Your task to perform on an android device: turn off smart reply in the gmail app Image 0: 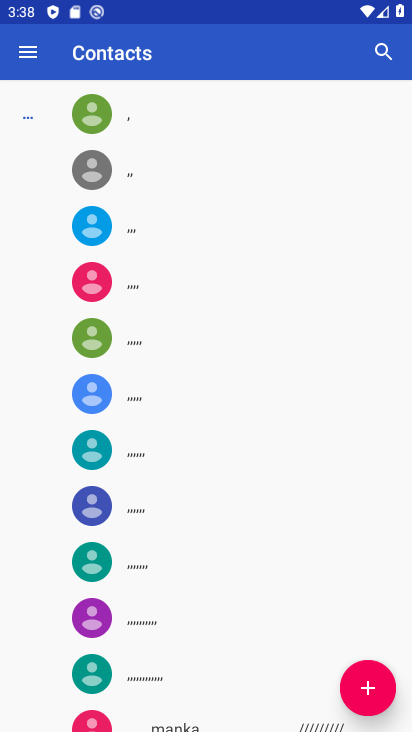
Step 0: press home button
Your task to perform on an android device: turn off smart reply in the gmail app Image 1: 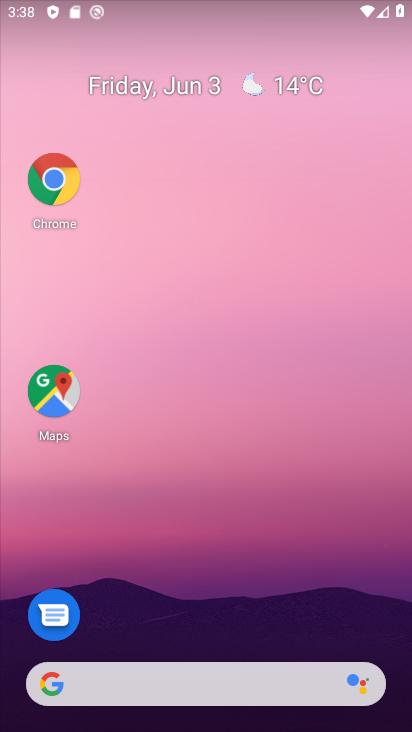
Step 1: drag from (109, 711) to (119, 3)
Your task to perform on an android device: turn off smart reply in the gmail app Image 2: 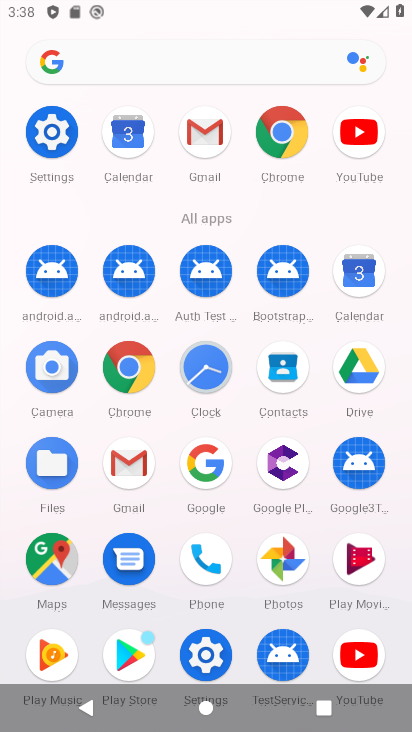
Step 2: click (132, 472)
Your task to perform on an android device: turn off smart reply in the gmail app Image 3: 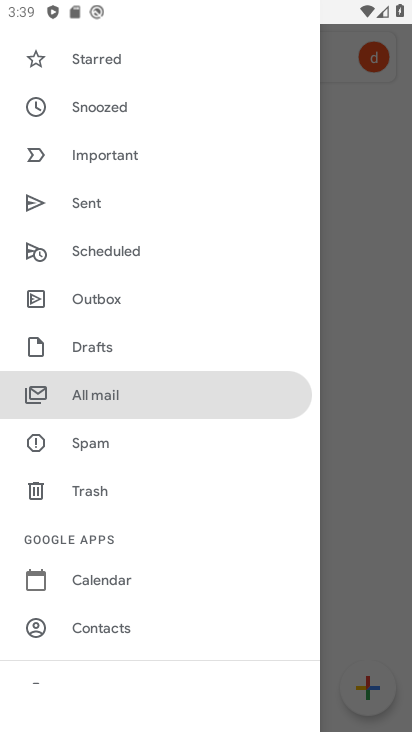
Step 3: drag from (161, 687) to (195, 220)
Your task to perform on an android device: turn off smart reply in the gmail app Image 4: 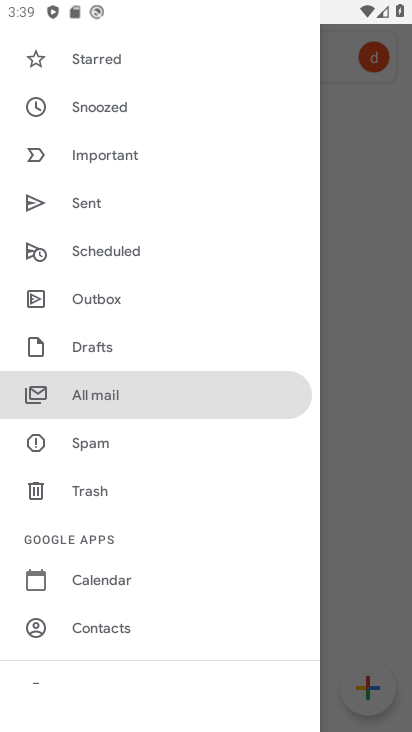
Step 4: drag from (157, 660) to (196, 184)
Your task to perform on an android device: turn off smart reply in the gmail app Image 5: 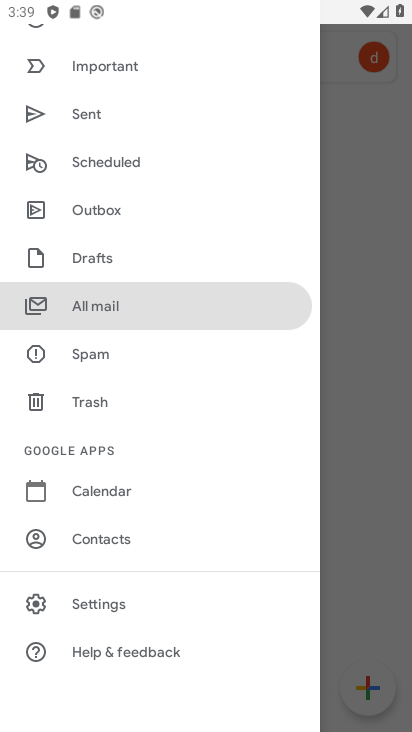
Step 5: click (109, 606)
Your task to perform on an android device: turn off smart reply in the gmail app Image 6: 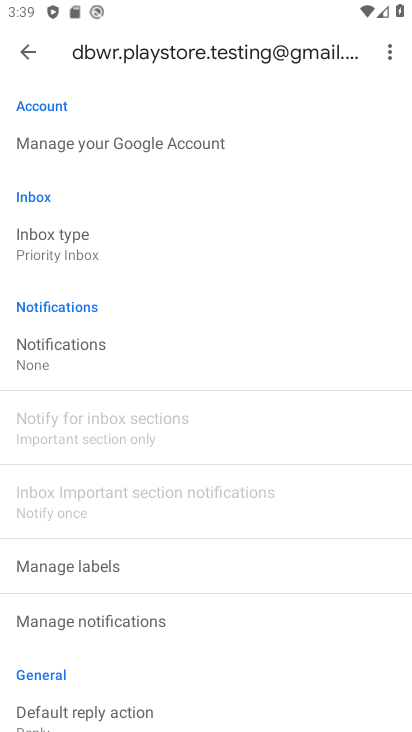
Step 6: drag from (241, 668) to (267, 179)
Your task to perform on an android device: turn off smart reply in the gmail app Image 7: 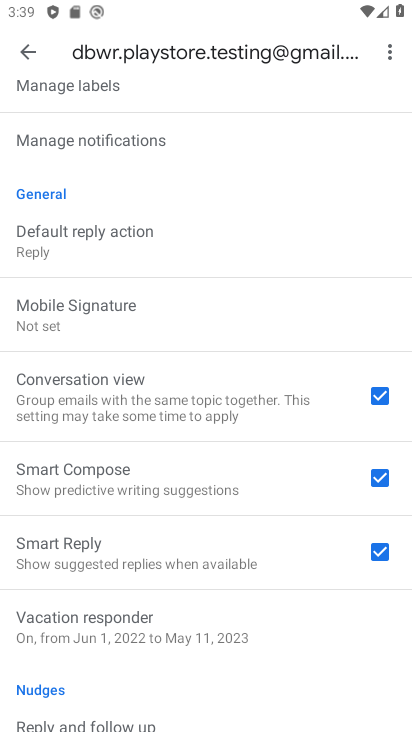
Step 7: click (379, 549)
Your task to perform on an android device: turn off smart reply in the gmail app Image 8: 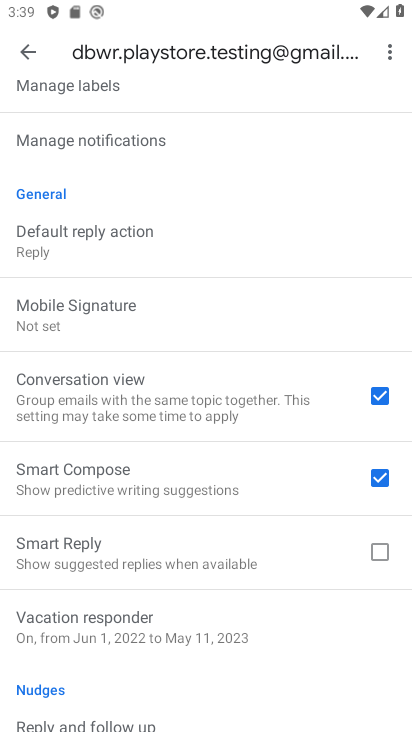
Step 8: task complete